Your task to perform on an android device: delete the emails in spam in the gmail app Image 0: 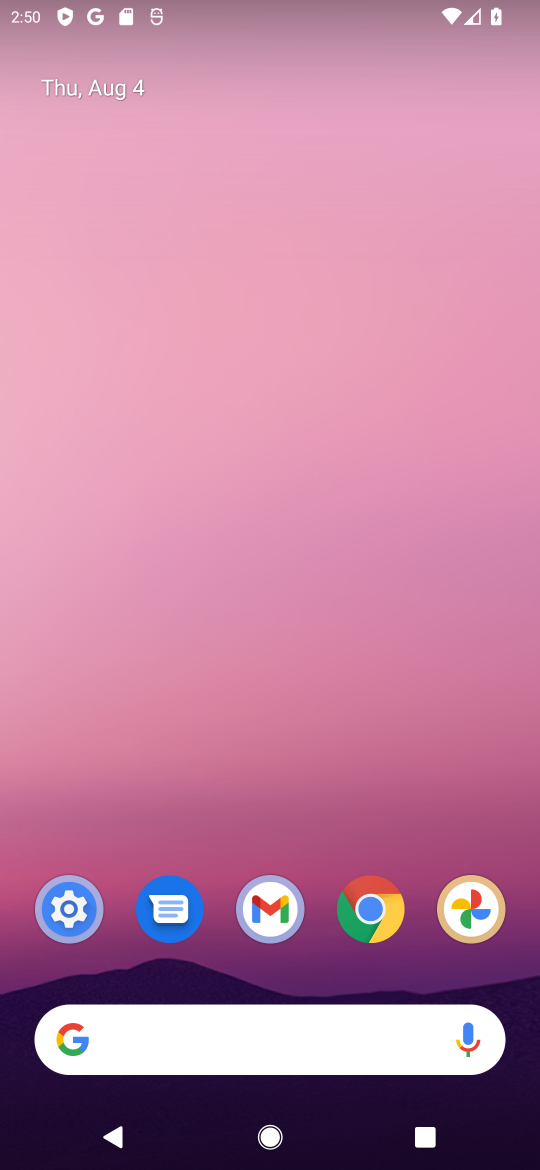
Step 0: drag from (284, 1015) to (492, 360)
Your task to perform on an android device: delete the emails in spam in the gmail app Image 1: 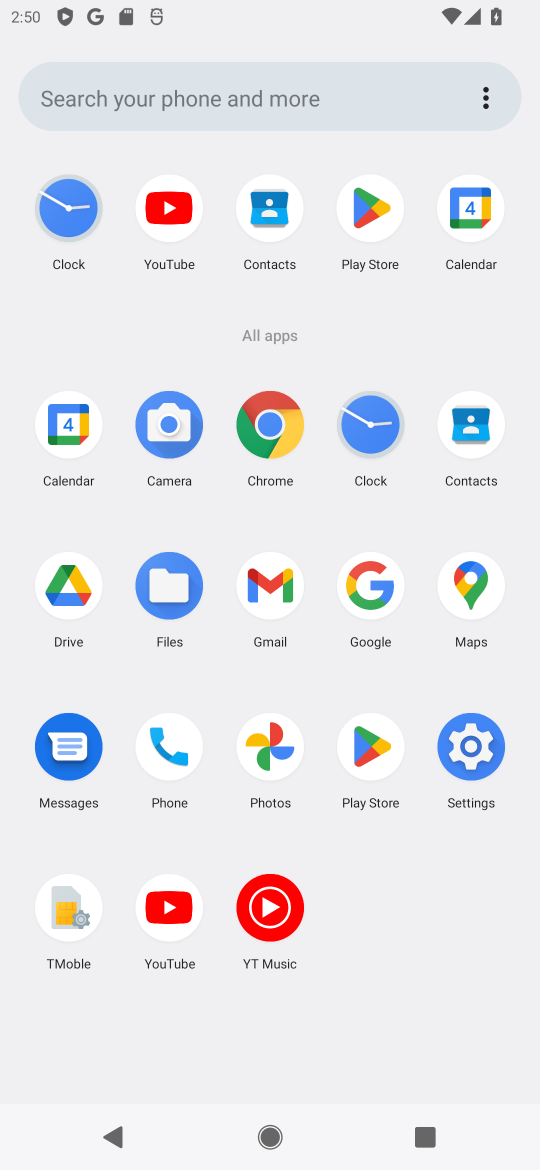
Step 1: click (275, 579)
Your task to perform on an android device: delete the emails in spam in the gmail app Image 2: 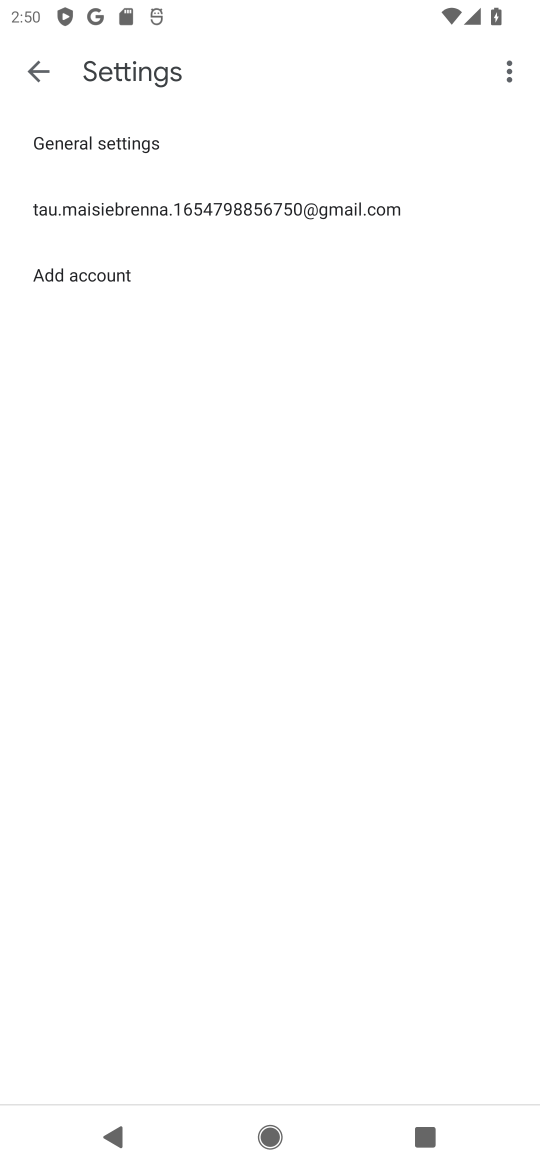
Step 2: click (49, 74)
Your task to perform on an android device: delete the emails in spam in the gmail app Image 3: 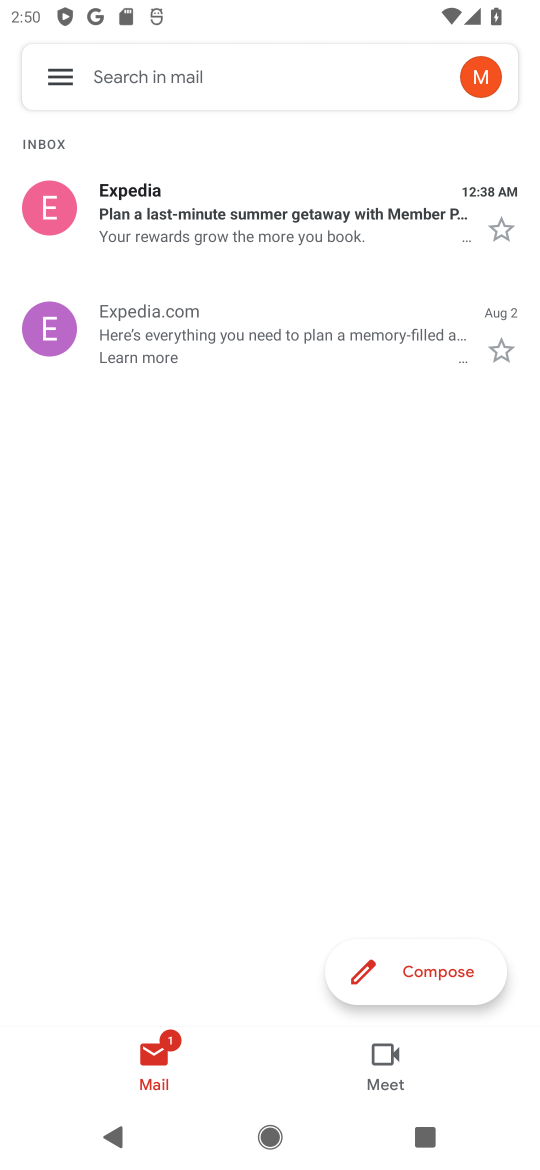
Step 3: click (60, 68)
Your task to perform on an android device: delete the emails in spam in the gmail app Image 4: 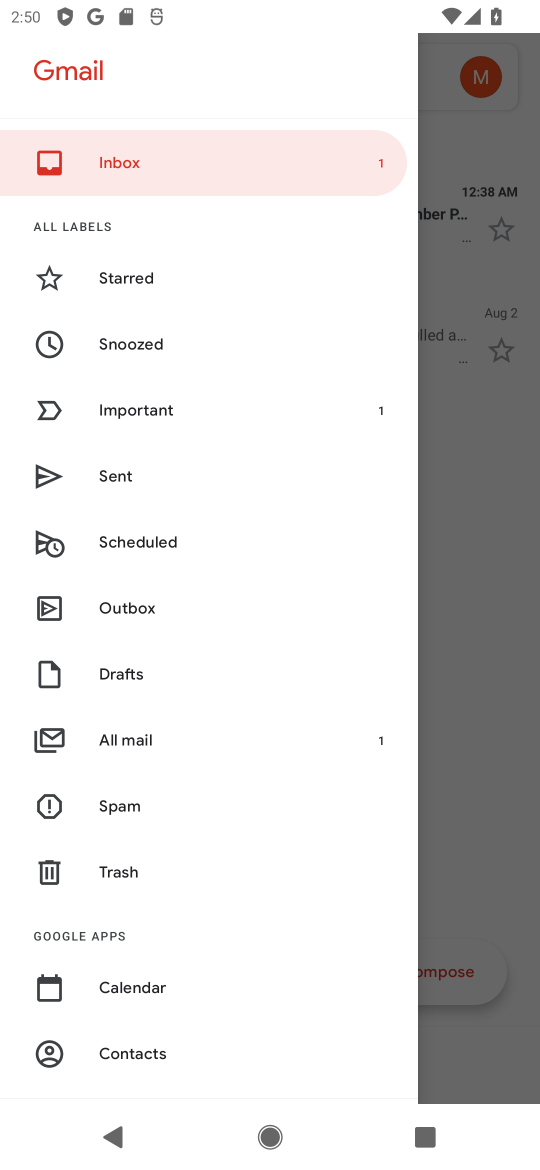
Step 4: click (136, 801)
Your task to perform on an android device: delete the emails in spam in the gmail app Image 5: 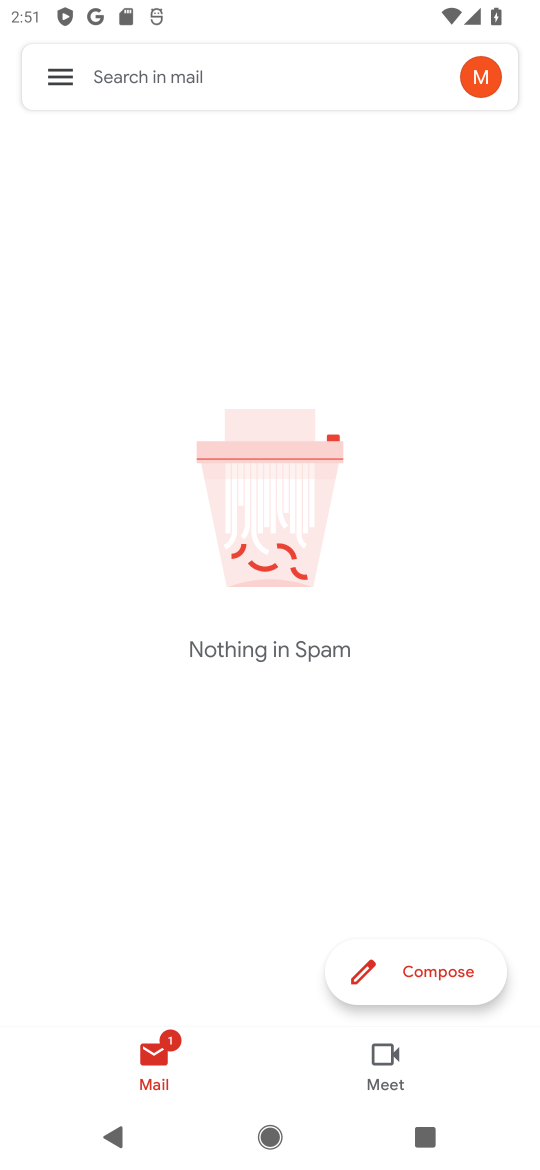
Step 5: task complete